Your task to perform on an android device: refresh tabs in the chrome app Image 0: 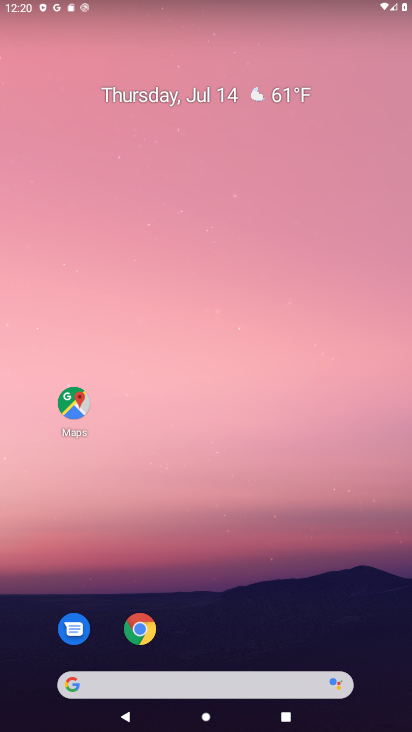
Step 0: click (151, 641)
Your task to perform on an android device: refresh tabs in the chrome app Image 1: 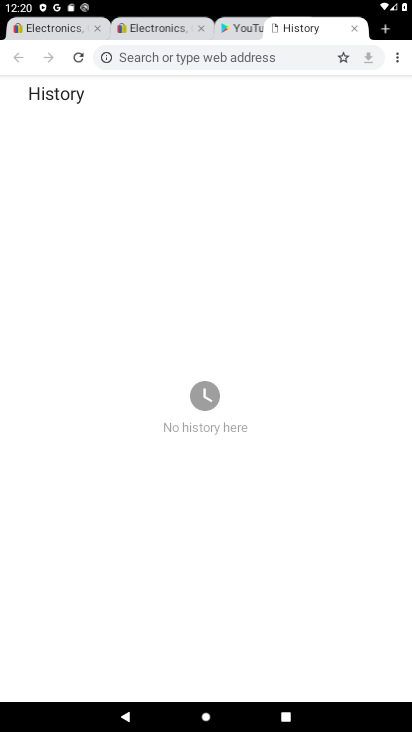
Step 1: click (74, 63)
Your task to perform on an android device: refresh tabs in the chrome app Image 2: 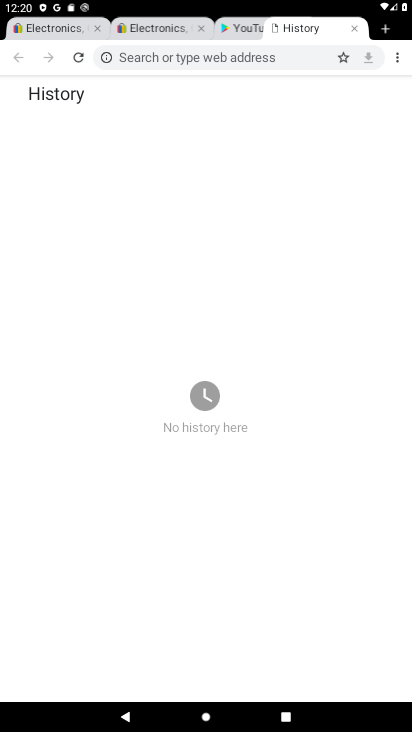
Step 2: click (74, 63)
Your task to perform on an android device: refresh tabs in the chrome app Image 3: 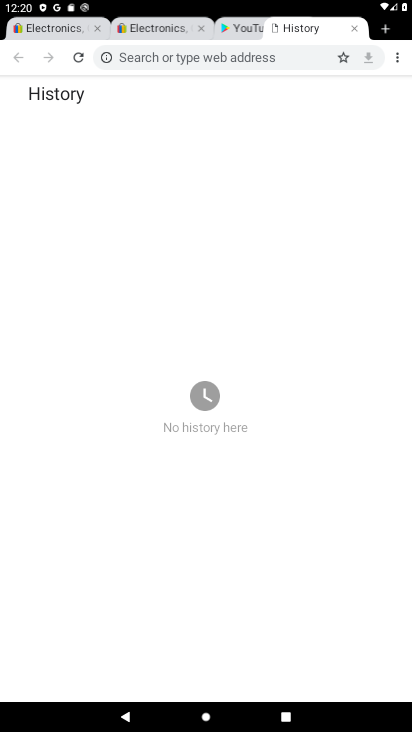
Step 3: task complete